Your task to perform on an android device: uninstall "Google Find My Device" Image 0: 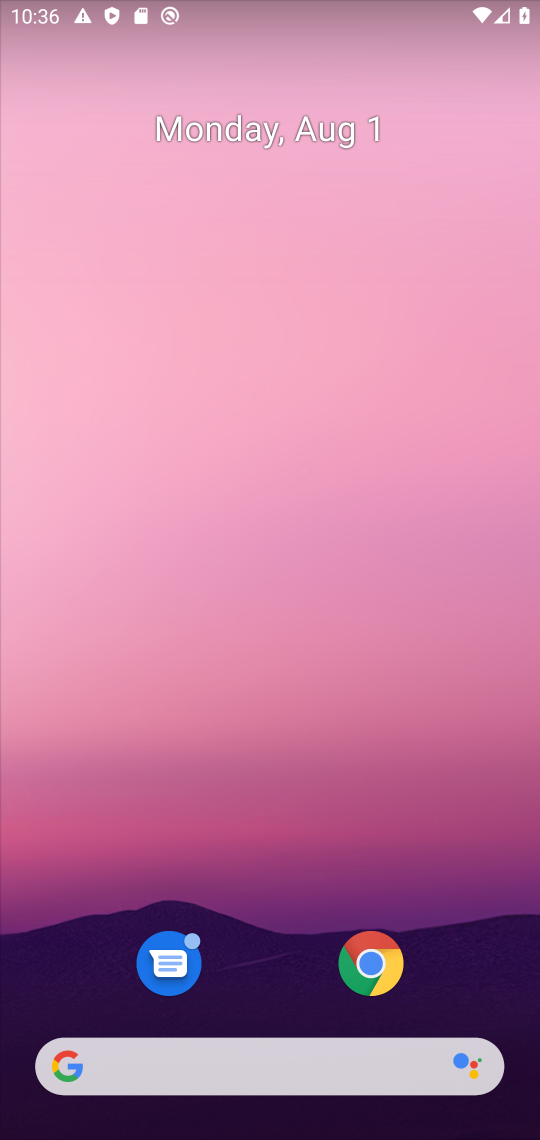
Step 0: drag from (263, 788) to (456, 592)
Your task to perform on an android device: uninstall "Google Find My Device" Image 1: 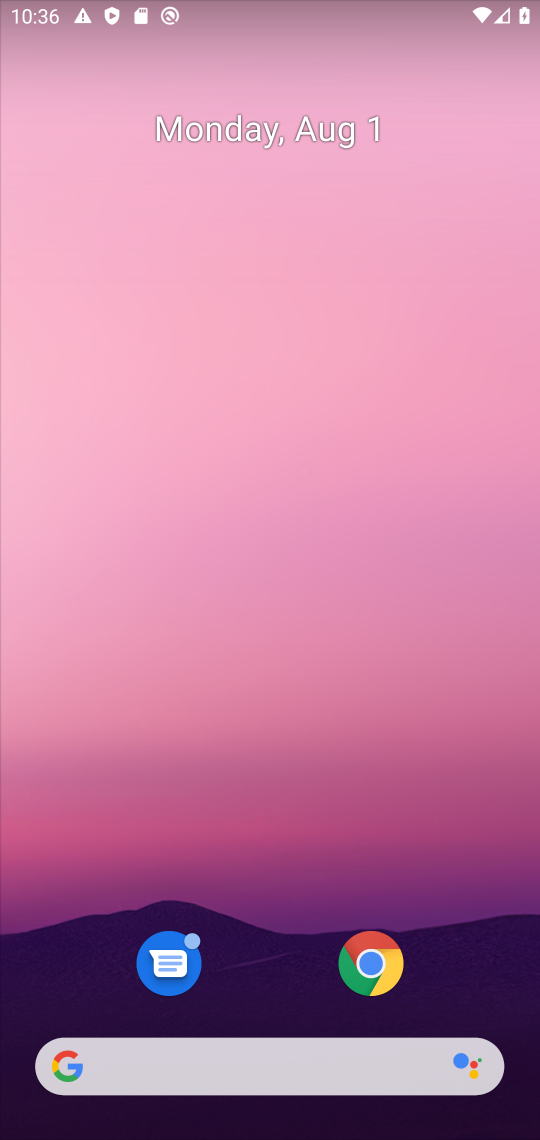
Step 1: drag from (305, 898) to (331, 581)
Your task to perform on an android device: uninstall "Google Find My Device" Image 2: 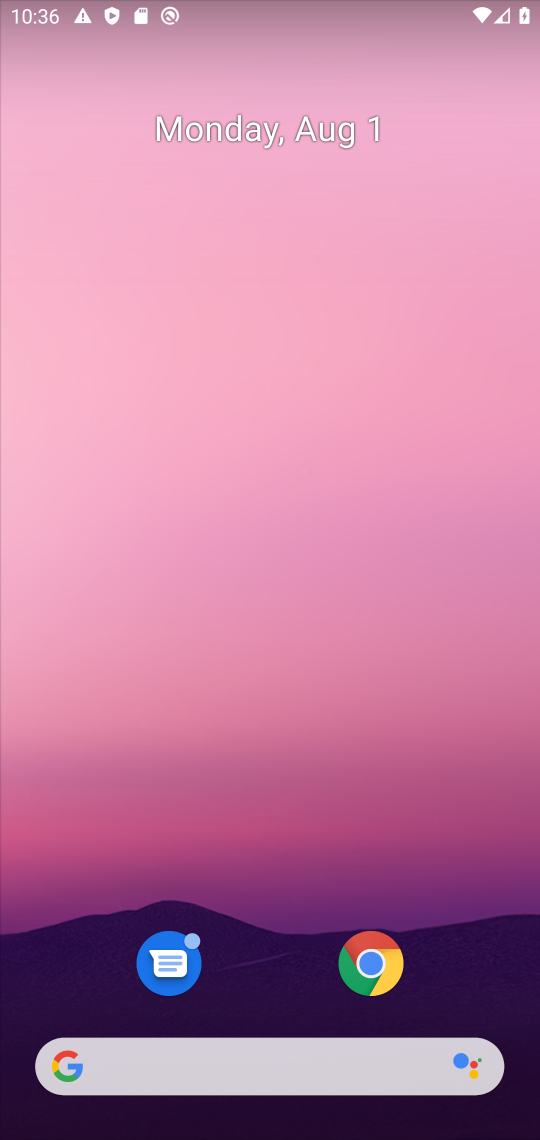
Step 2: drag from (227, 981) to (426, 6)
Your task to perform on an android device: uninstall "Google Find My Device" Image 3: 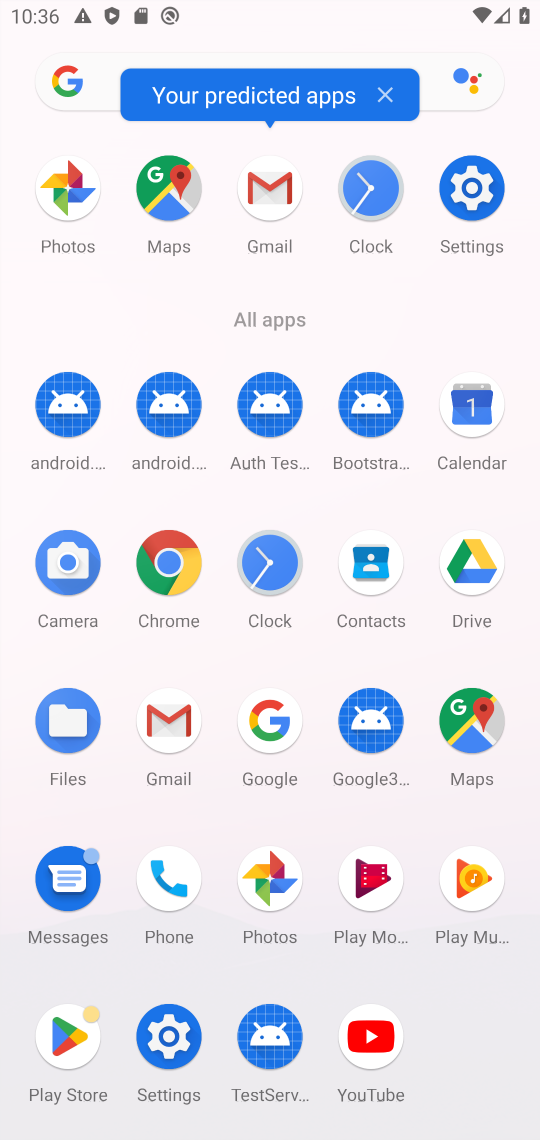
Step 3: click (57, 1051)
Your task to perform on an android device: uninstall "Google Find My Device" Image 4: 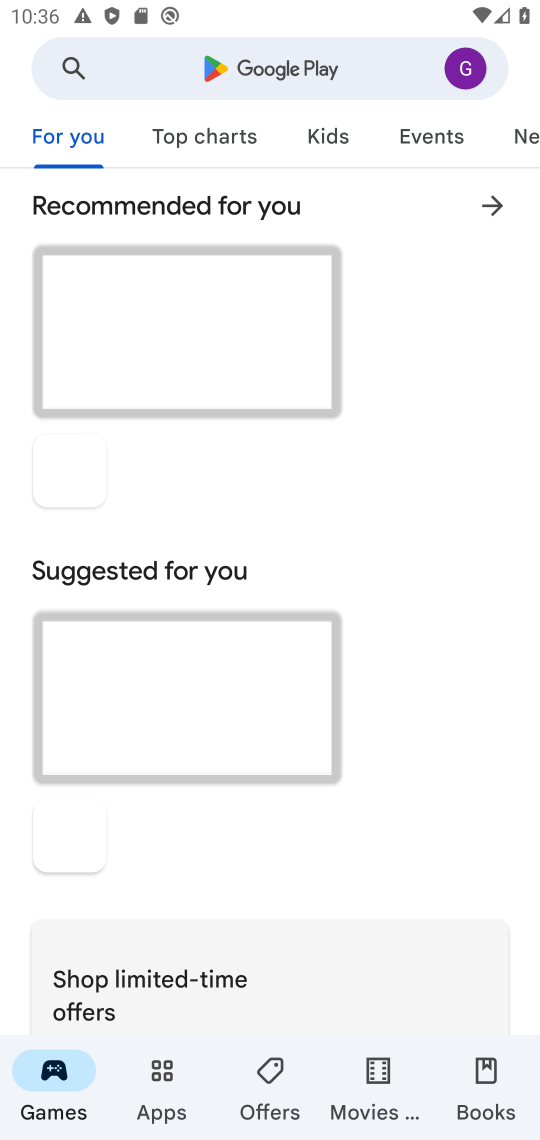
Step 4: click (282, 70)
Your task to perform on an android device: uninstall "Google Find My Device" Image 5: 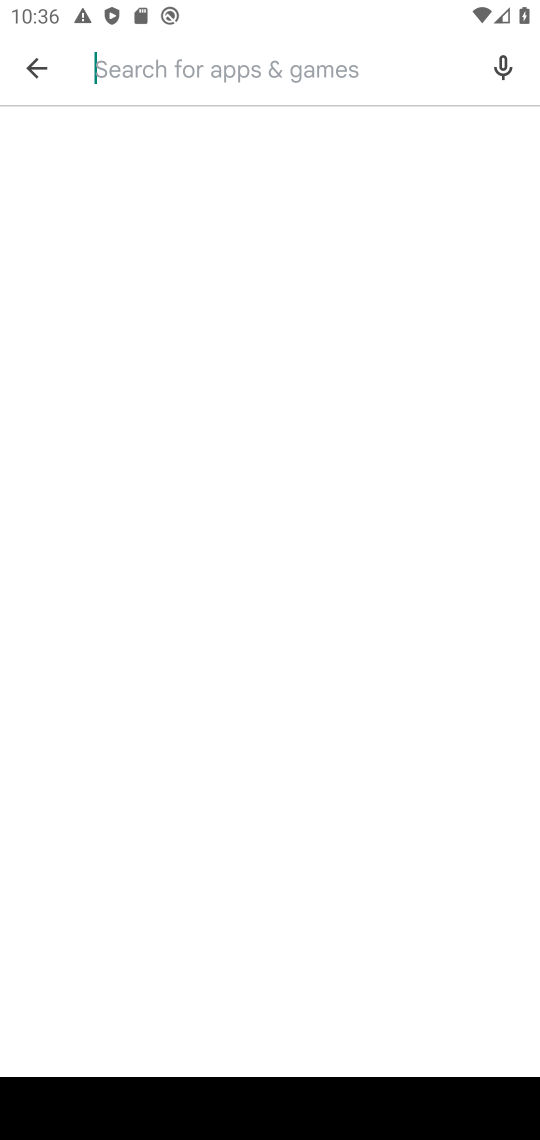
Step 5: type "google find my device"
Your task to perform on an android device: uninstall "Google Find My Device" Image 6: 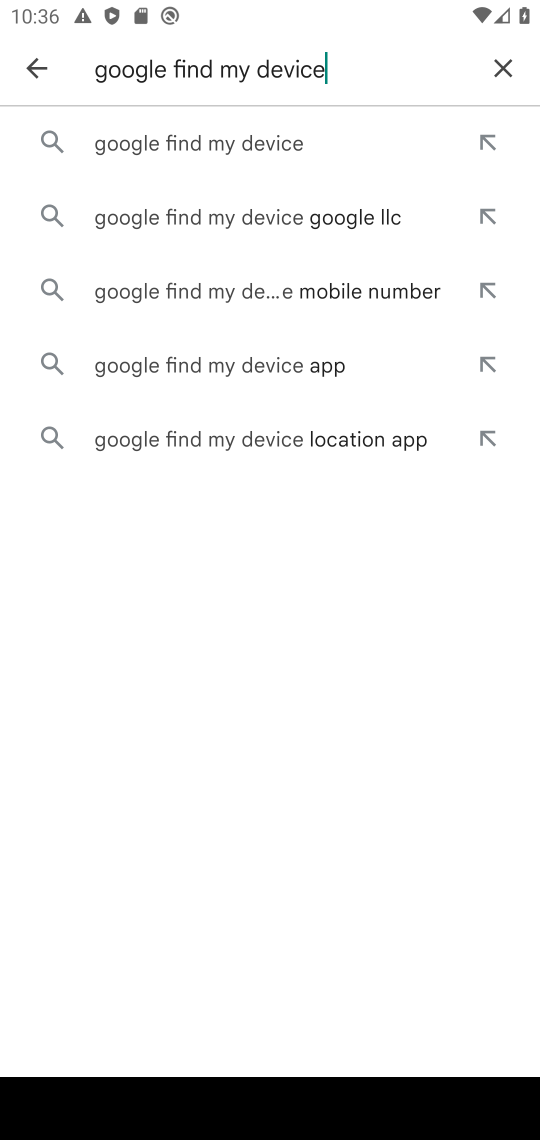
Step 6: click (209, 147)
Your task to perform on an android device: uninstall "Google Find My Device" Image 7: 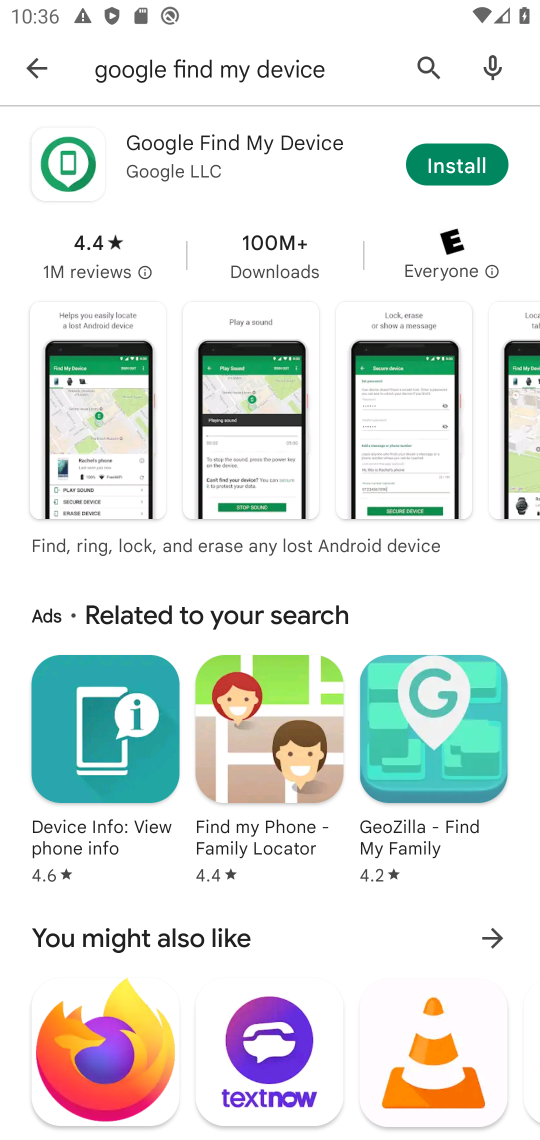
Step 7: task complete